Your task to perform on an android device: clear all cookies in the chrome app Image 0: 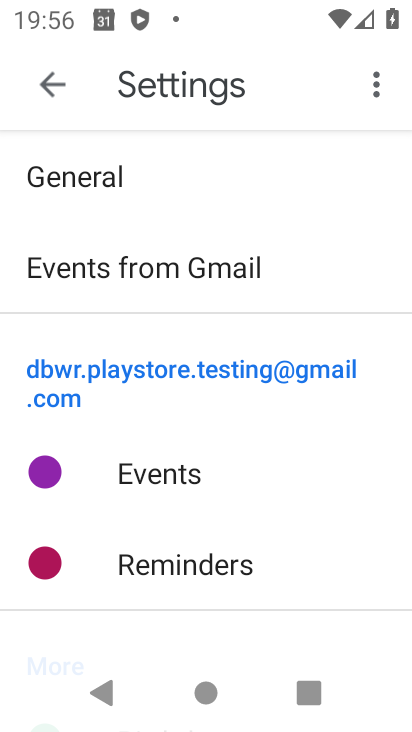
Step 0: press home button
Your task to perform on an android device: clear all cookies in the chrome app Image 1: 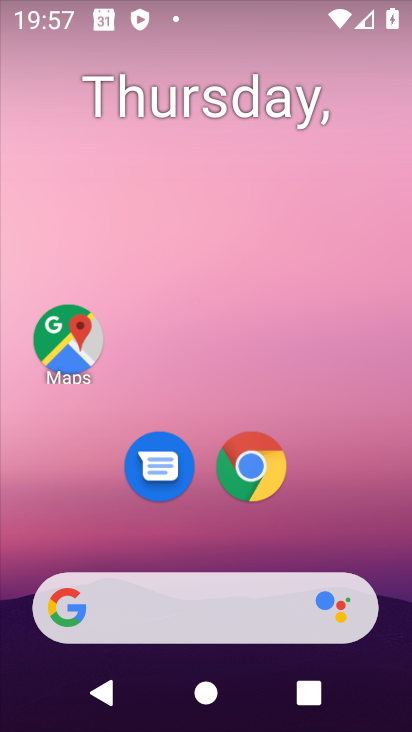
Step 1: click (255, 483)
Your task to perform on an android device: clear all cookies in the chrome app Image 2: 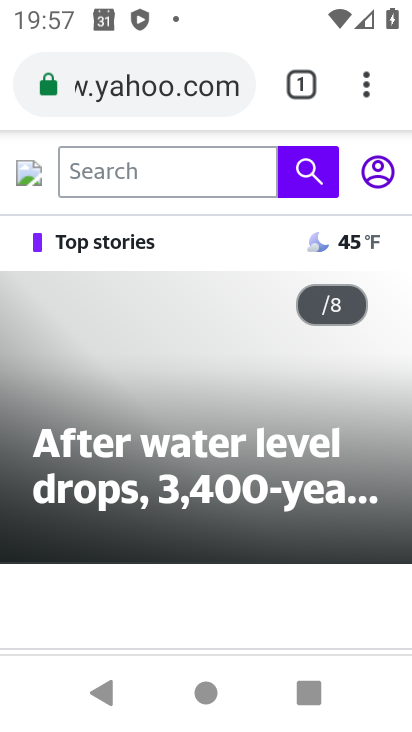
Step 2: click (369, 81)
Your task to perform on an android device: clear all cookies in the chrome app Image 3: 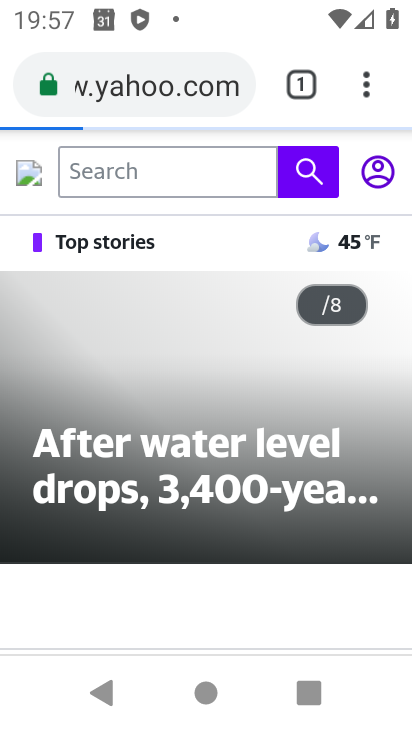
Step 3: drag from (369, 81) to (240, 198)
Your task to perform on an android device: clear all cookies in the chrome app Image 4: 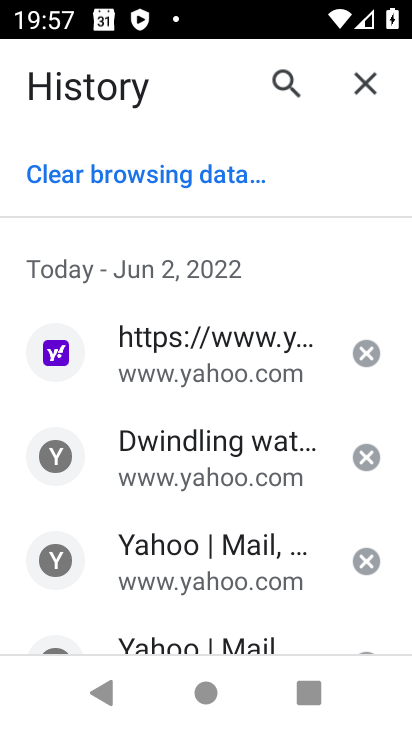
Step 4: click (84, 167)
Your task to perform on an android device: clear all cookies in the chrome app Image 5: 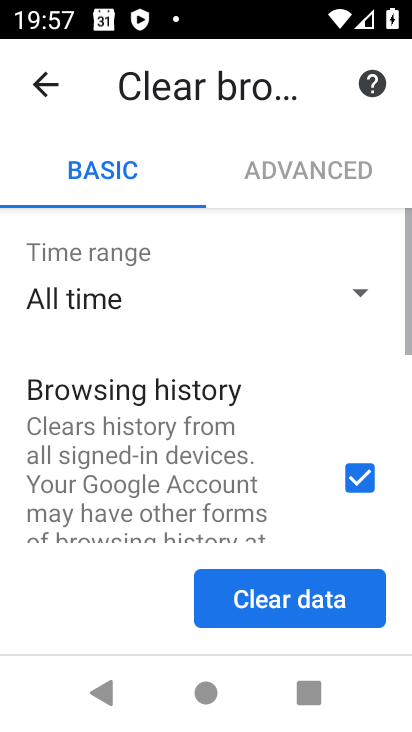
Step 5: drag from (250, 443) to (231, 231)
Your task to perform on an android device: clear all cookies in the chrome app Image 6: 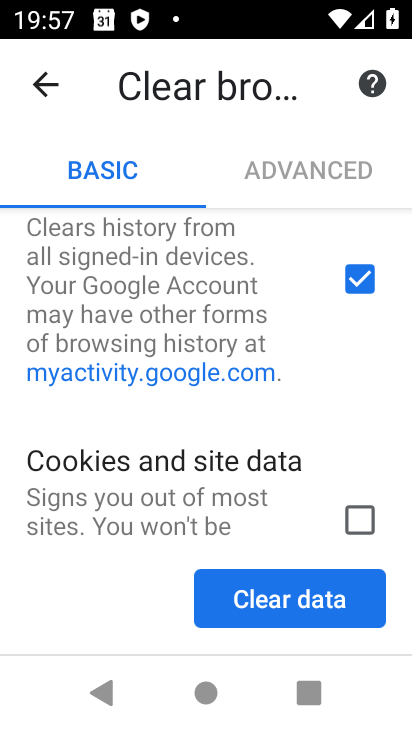
Step 6: click (351, 273)
Your task to perform on an android device: clear all cookies in the chrome app Image 7: 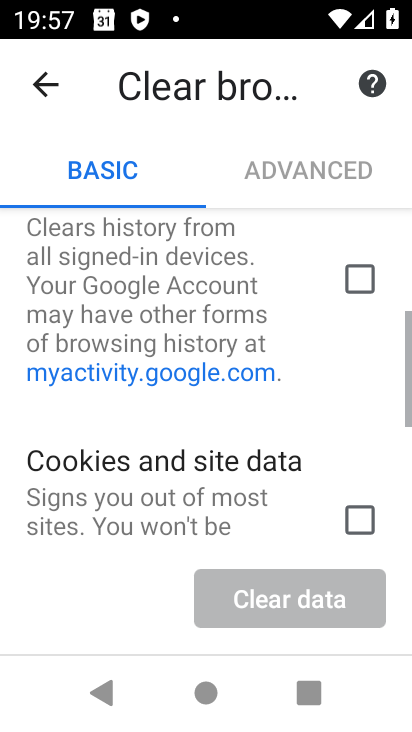
Step 7: click (352, 518)
Your task to perform on an android device: clear all cookies in the chrome app Image 8: 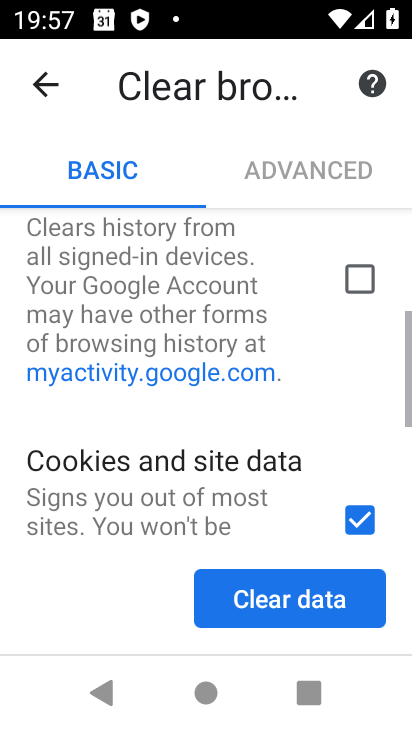
Step 8: drag from (356, 438) to (345, 107)
Your task to perform on an android device: clear all cookies in the chrome app Image 9: 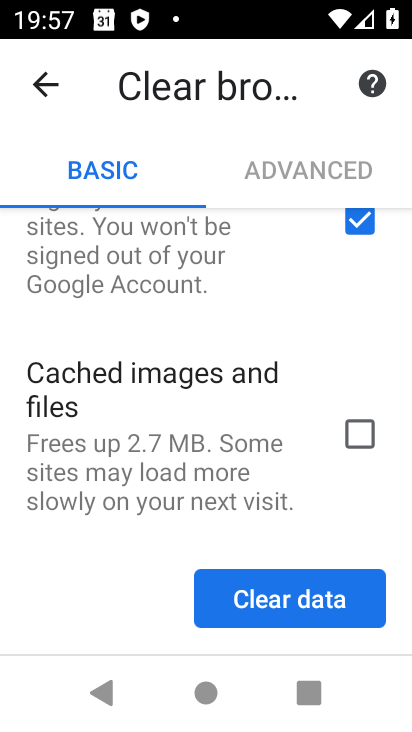
Step 9: drag from (255, 489) to (243, 209)
Your task to perform on an android device: clear all cookies in the chrome app Image 10: 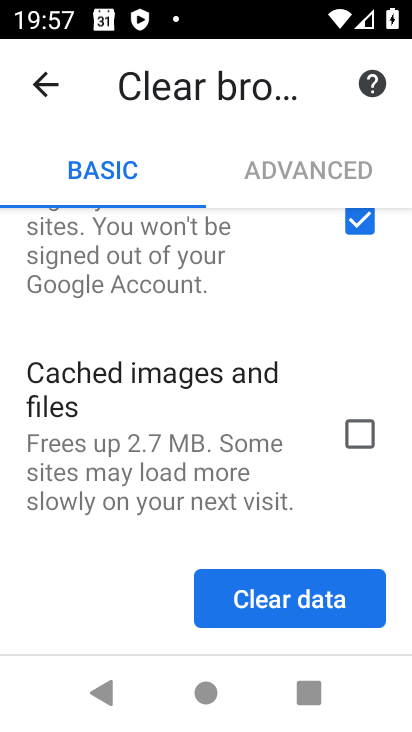
Step 10: click (321, 591)
Your task to perform on an android device: clear all cookies in the chrome app Image 11: 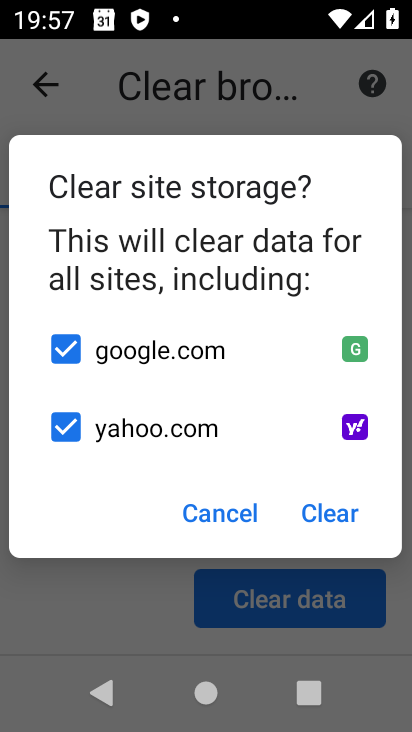
Step 11: click (324, 513)
Your task to perform on an android device: clear all cookies in the chrome app Image 12: 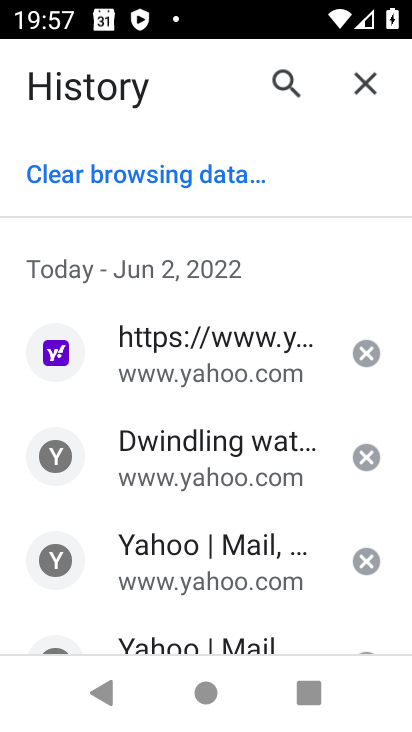
Step 12: task complete